Your task to perform on an android device: turn off data saver in the chrome app Image 0: 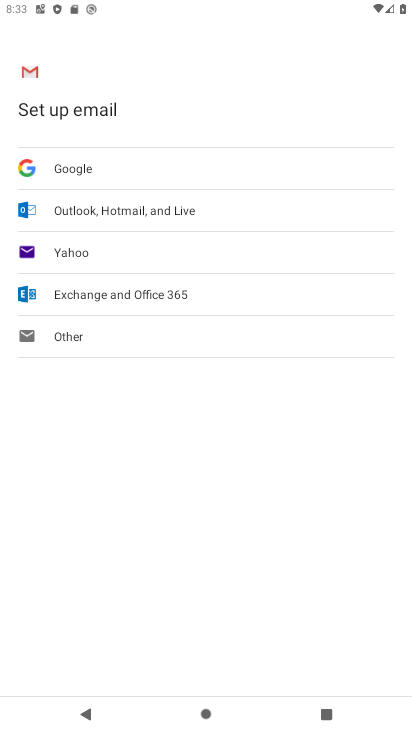
Step 0: press home button
Your task to perform on an android device: turn off data saver in the chrome app Image 1: 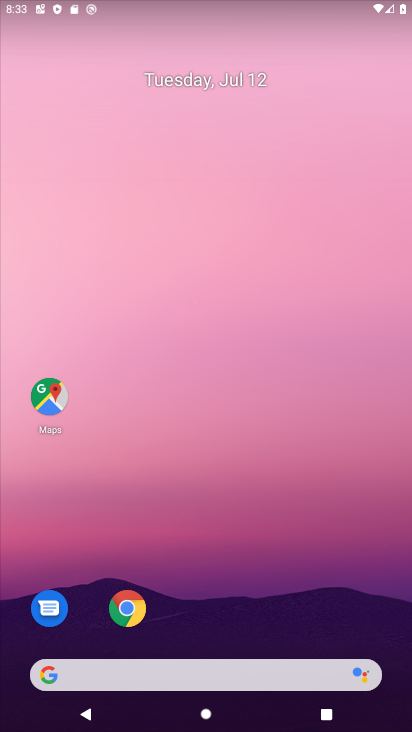
Step 1: click (121, 616)
Your task to perform on an android device: turn off data saver in the chrome app Image 2: 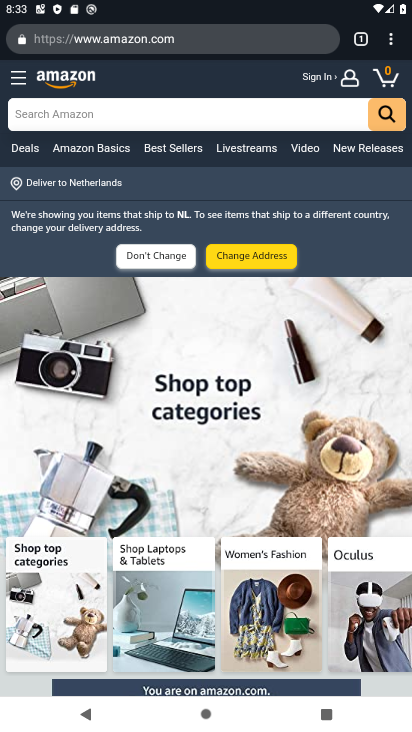
Step 2: click (397, 36)
Your task to perform on an android device: turn off data saver in the chrome app Image 3: 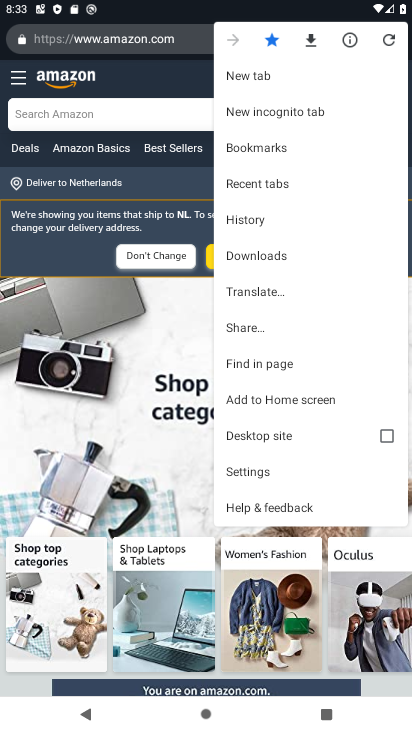
Step 3: click (277, 474)
Your task to perform on an android device: turn off data saver in the chrome app Image 4: 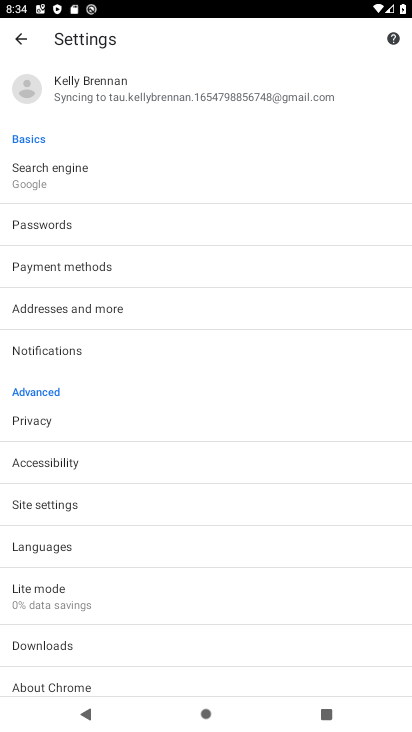
Step 4: drag from (97, 597) to (149, 282)
Your task to perform on an android device: turn off data saver in the chrome app Image 5: 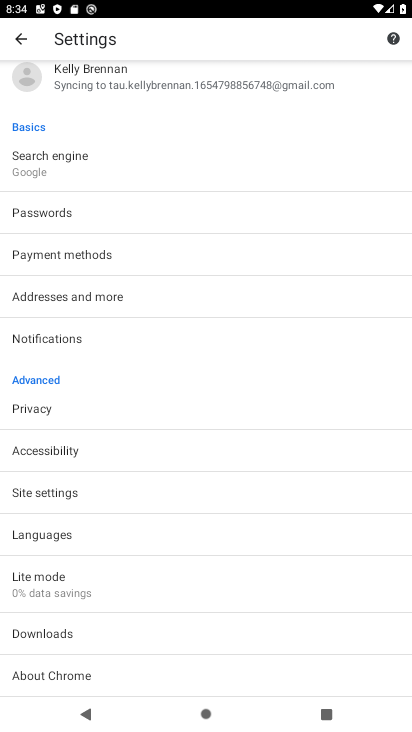
Step 5: drag from (106, 671) to (184, 213)
Your task to perform on an android device: turn off data saver in the chrome app Image 6: 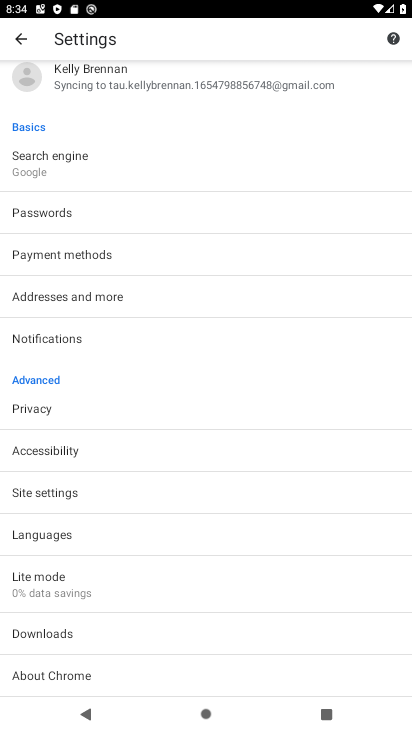
Step 6: click (57, 583)
Your task to perform on an android device: turn off data saver in the chrome app Image 7: 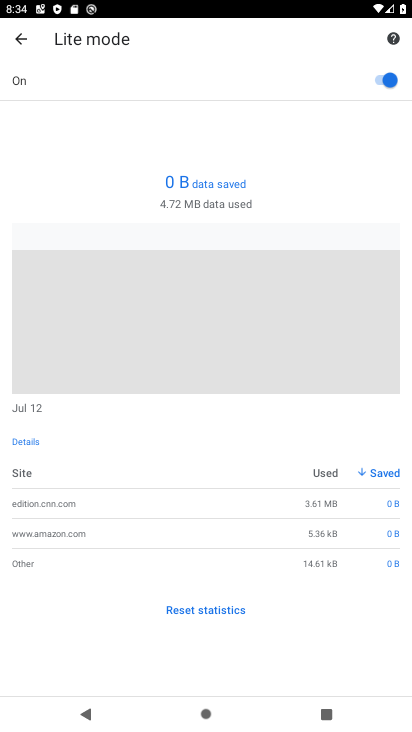
Step 7: click (388, 80)
Your task to perform on an android device: turn off data saver in the chrome app Image 8: 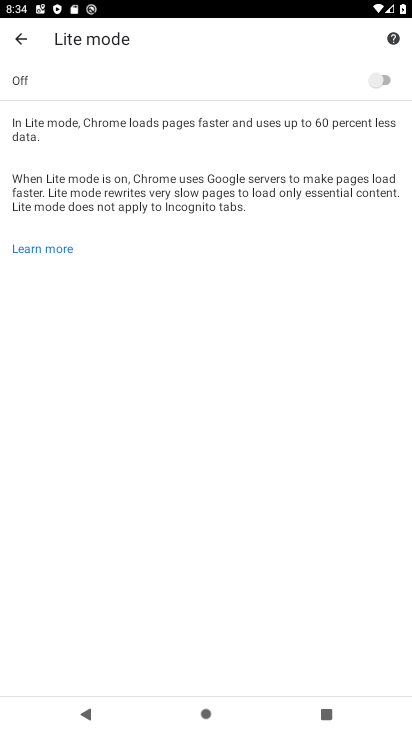
Step 8: task complete